Your task to perform on an android device: add a contact Image 0: 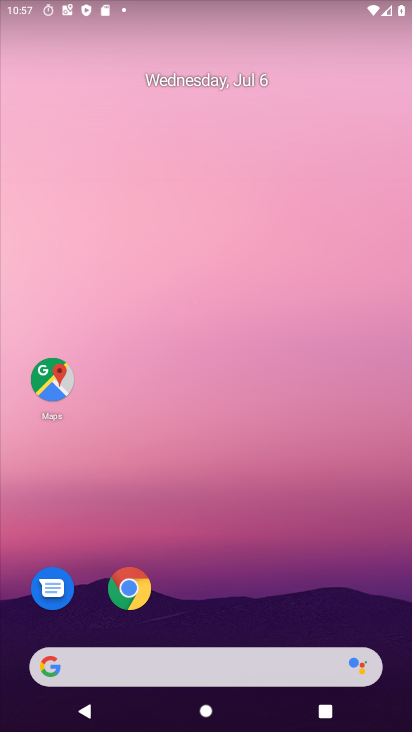
Step 0: drag from (233, 701) to (240, 249)
Your task to perform on an android device: add a contact Image 1: 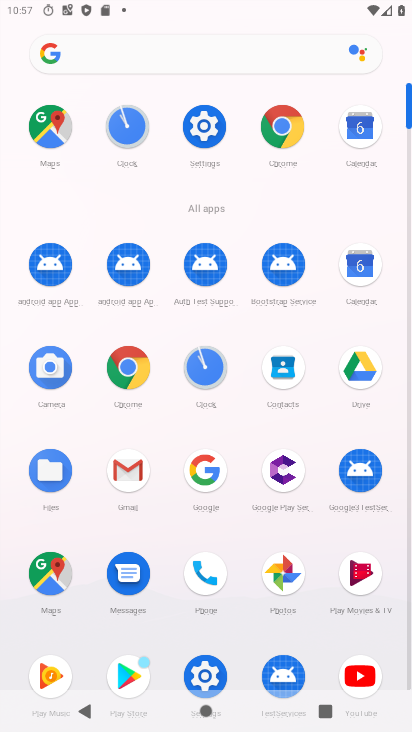
Step 1: click (279, 362)
Your task to perform on an android device: add a contact Image 2: 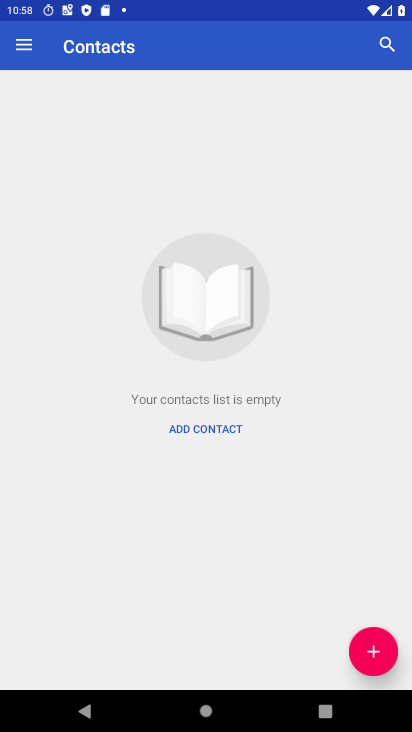
Step 2: click (381, 653)
Your task to perform on an android device: add a contact Image 3: 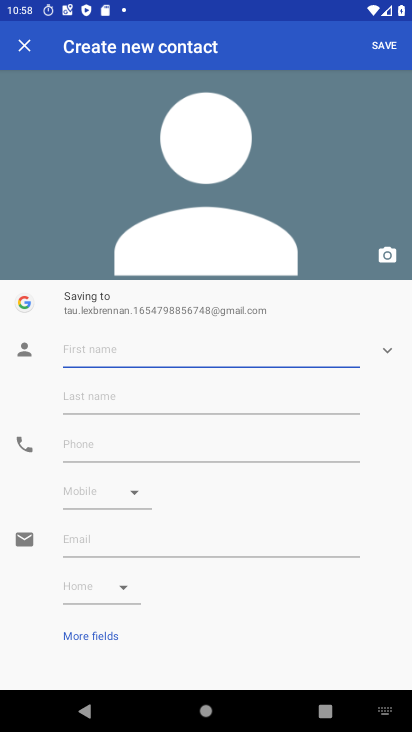
Step 3: type "fgfg"
Your task to perform on an android device: add a contact Image 4: 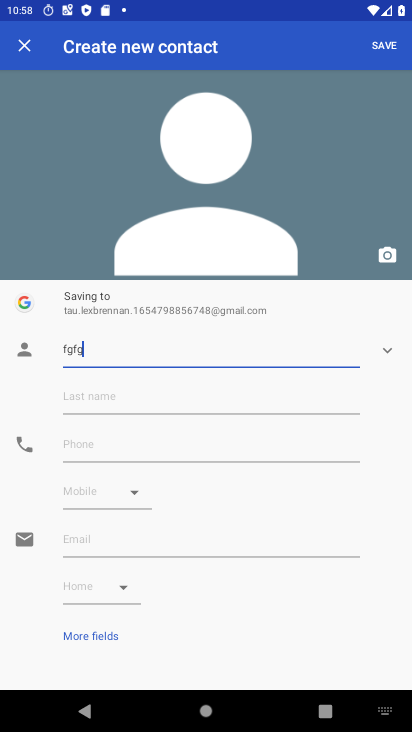
Step 4: type ""
Your task to perform on an android device: add a contact Image 5: 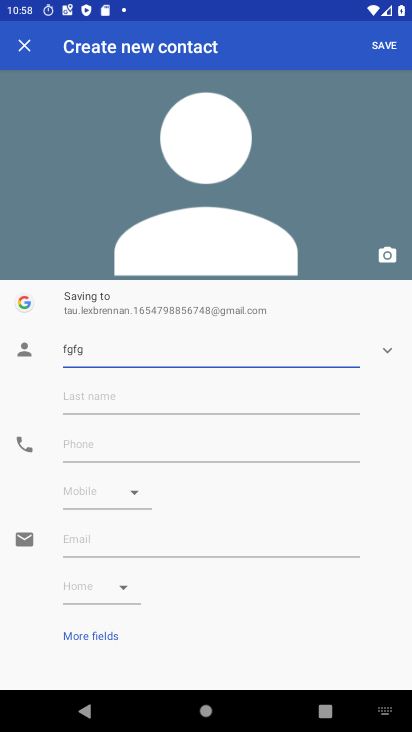
Step 5: click (79, 440)
Your task to perform on an android device: add a contact Image 6: 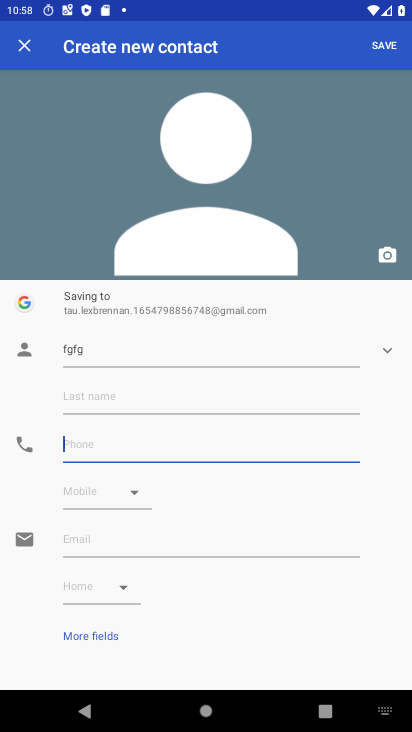
Step 6: type "565"
Your task to perform on an android device: add a contact Image 7: 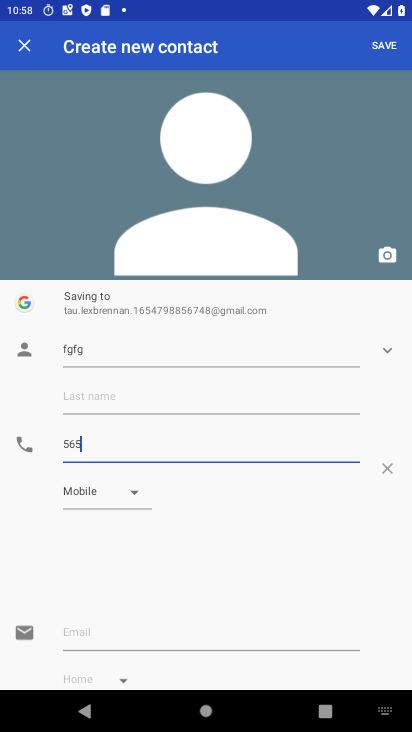
Step 7: type ""
Your task to perform on an android device: add a contact Image 8: 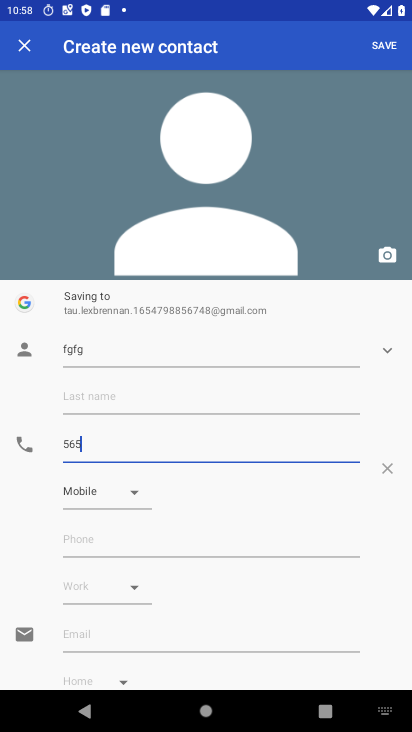
Step 8: click (389, 42)
Your task to perform on an android device: add a contact Image 9: 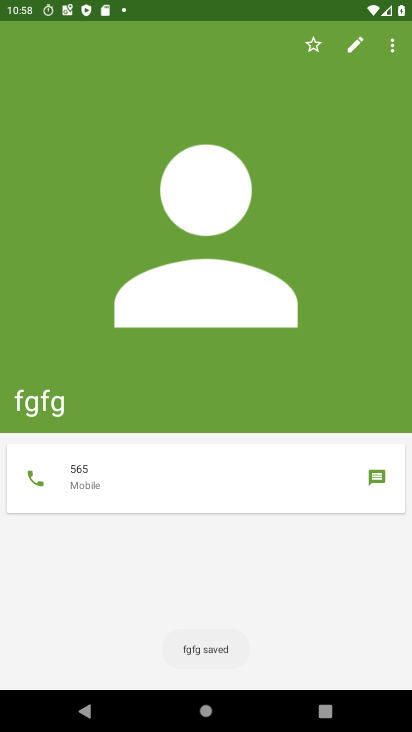
Step 9: task complete